Your task to perform on an android device: open sync settings in chrome Image 0: 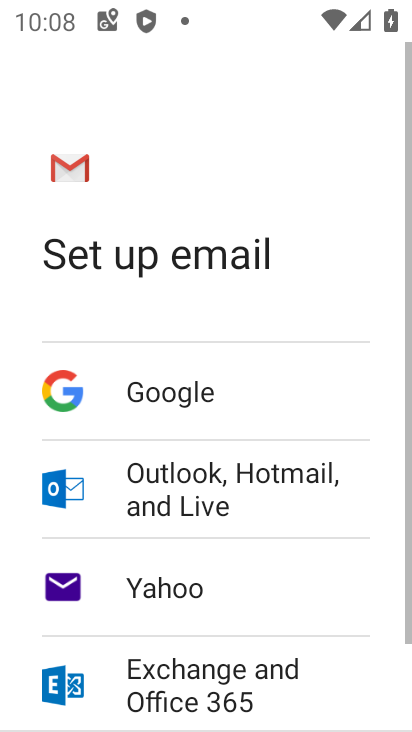
Step 0: press home button
Your task to perform on an android device: open sync settings in chrome Image 1: 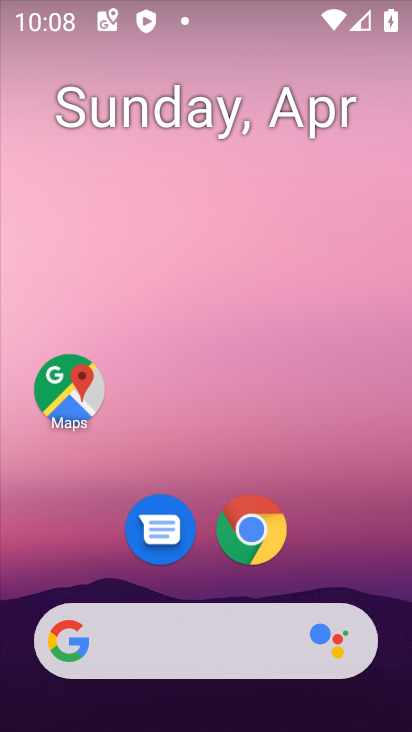
Step 1: click (257, 512)
Your task to perform on an android device: open sync settings in chrome Image 2: 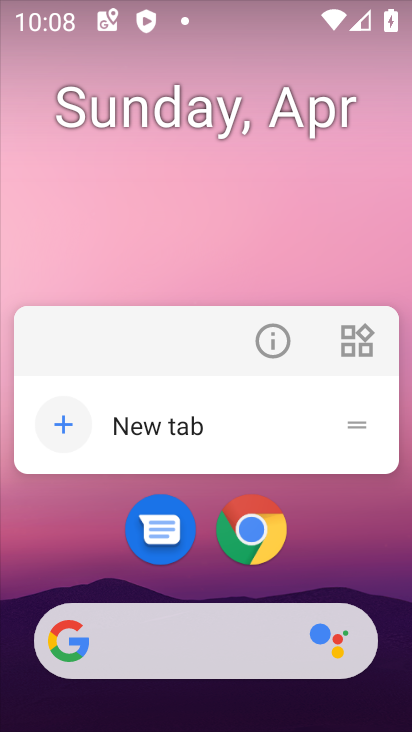
Step 2: click (256, 545)
Your task to perform on an android device: open sync settings in chrome Image 3: 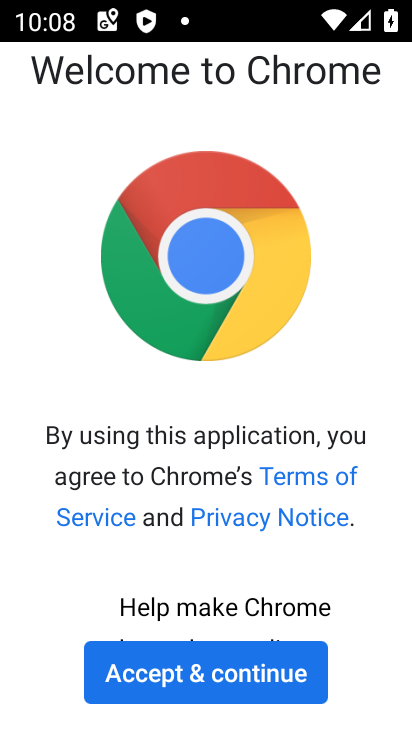
Step 3: click (206, 684)
Your task to perform on an android device: open sync settings in chrome Image 4: 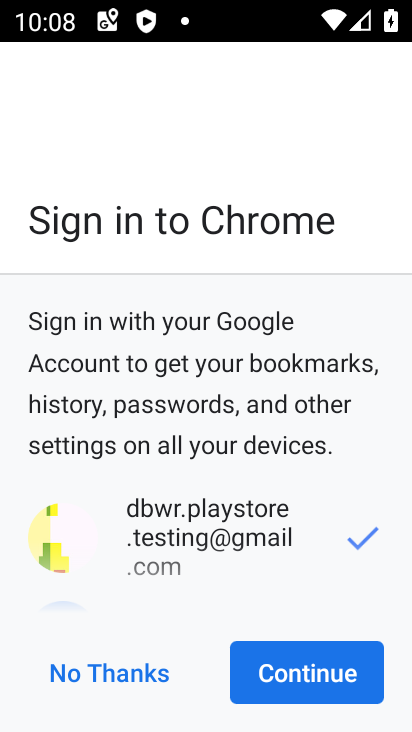
Step 4: click (299, 677)
Your task to perform on an android device: open sync settings in chrome Image 5: 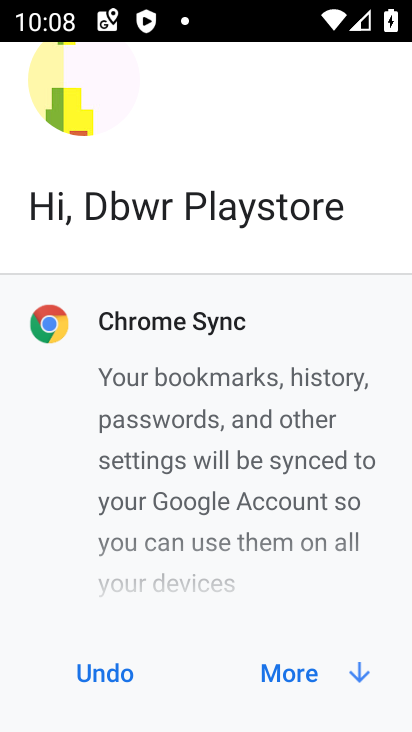
Step 5: click (299, 677)
Your task to perform on an android device: open sync settings in chrome Image 6: 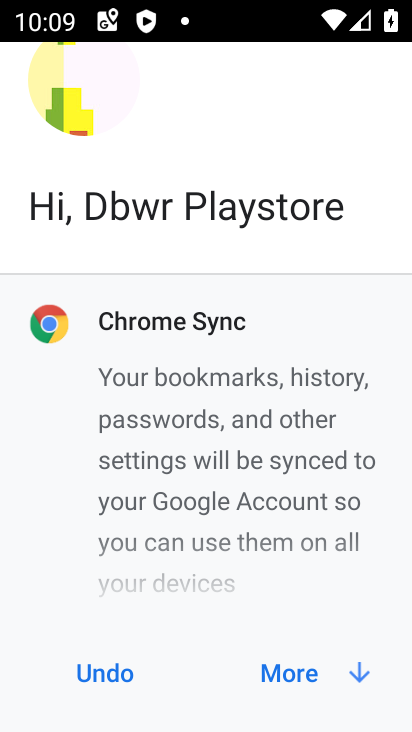
Step 6: click (299, 677)
Your task to perform on an android device: open sync settings in chrome Image 7: 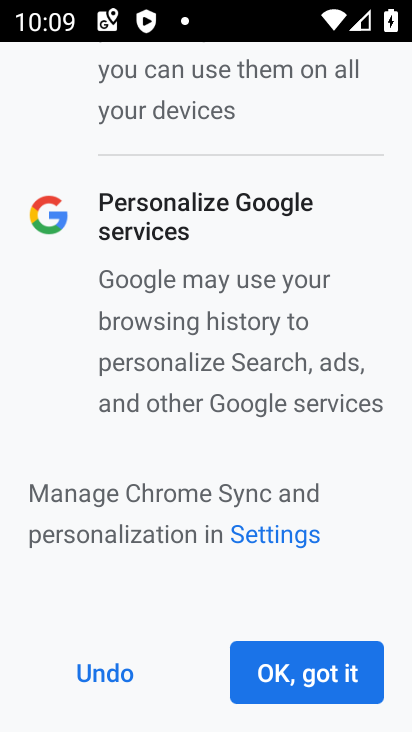
Step 7: click (299, 677)
Your task to perform on an android device: open sync settings in chrome Image 8: 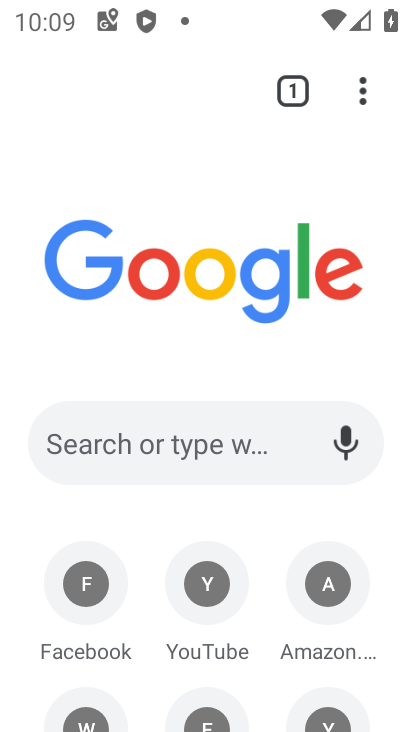
Step 8: click (366, 88)
Your task to perform on an android device: open sync settings in chrome Image 9: 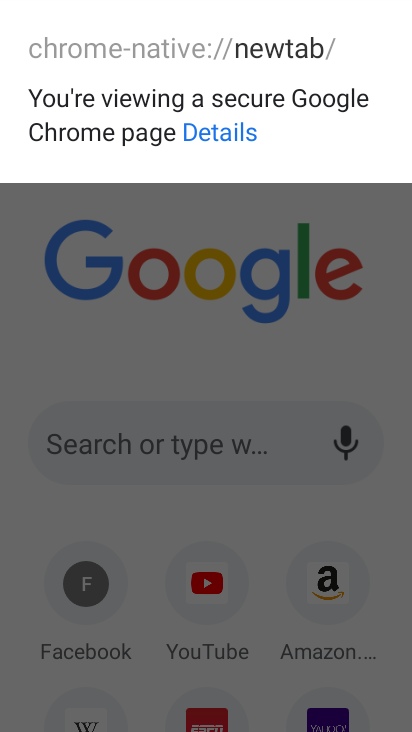
Step 9: click (351, 224)
Your task to perform on an android device: open sync settings in chrome Image 10: 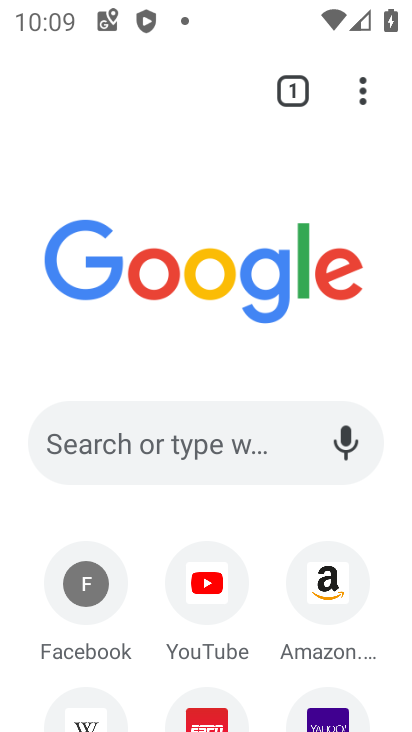
Step 10: click (364, 95)
Your task to perform on an android device: open sync settings in chrome Image 11: 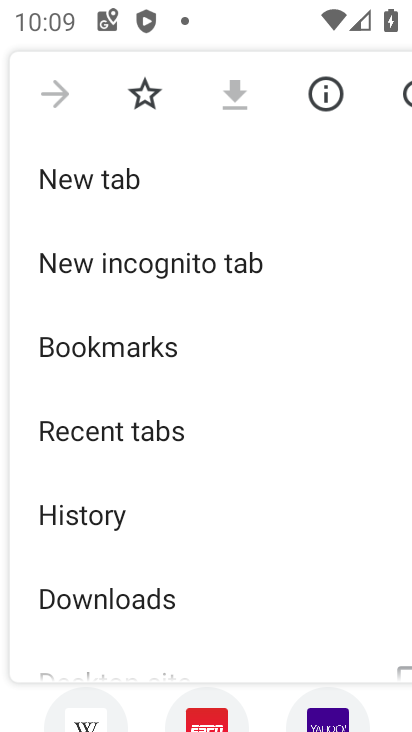
Step 11: drag from (206, 533) to (329, 137)
Your task to perform on an android device: open sync settings in chrome Image 12: 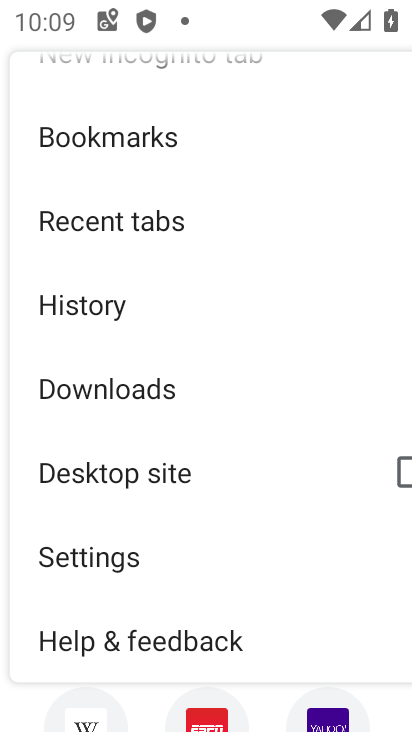
Step 12: click (112, 563)
Your task to perform on an android device: open sync settings in chrome Image 13: 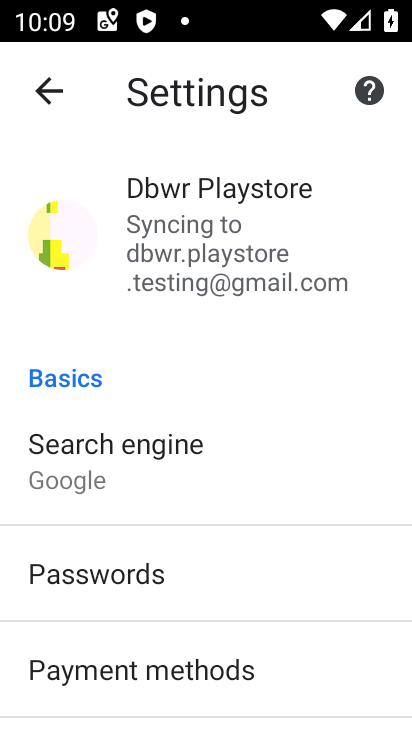
Step 13: drag from (134, 599) to (263, 158)
Your task to perform on an android device: open sync settings in chrome Image 14: 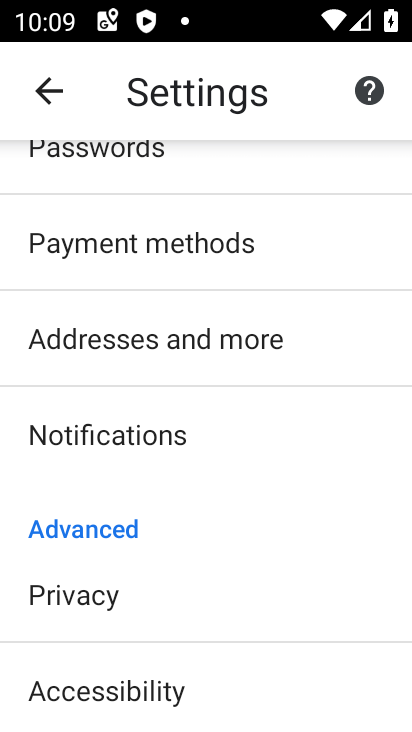
Step 14: drag from (110, 630) to (202, 160)
Your task to perform on an android device: open sync settings in chrome Image 15: 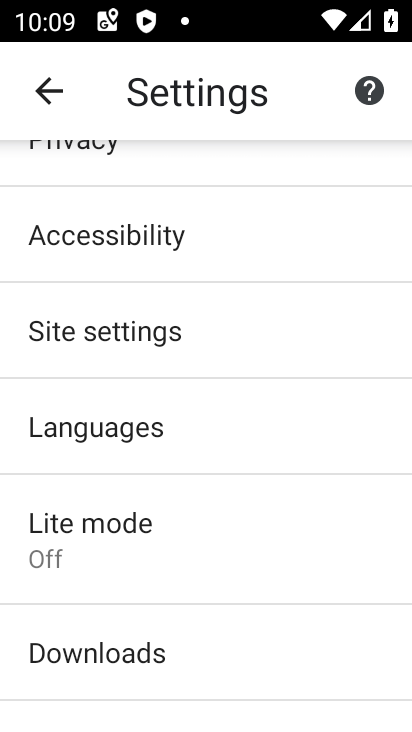
Step 15: click (166, 322)
Your task to perform on an android device: open sync settings in chrome Image 16: 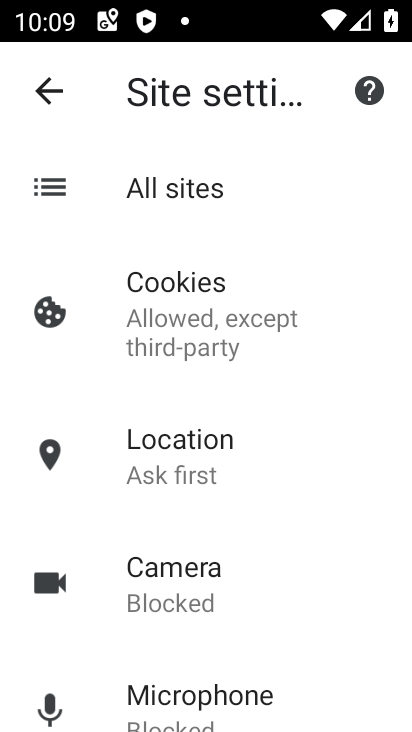
Step 16: drag from (167, 626) to (261, 299)
Your task to perform on an android device: open sync settings in chrome Image 17: 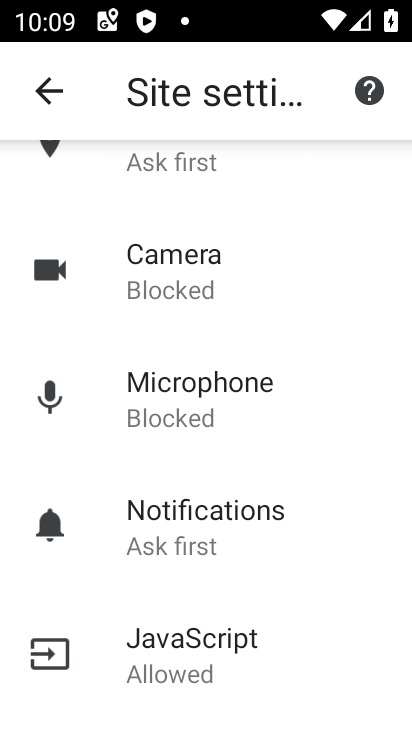
Step 17: drag from (191, 461) to (297, 213)
Your task to perform on an android device: open sync settings in chrome Image 18: 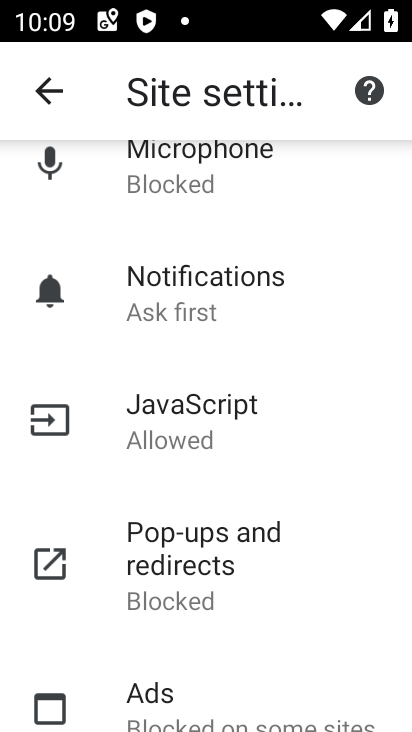
Step 18: drag from (234, 552) to (299, 313)
Your task to perform on an android device: open sync settings in chrome Image 19: 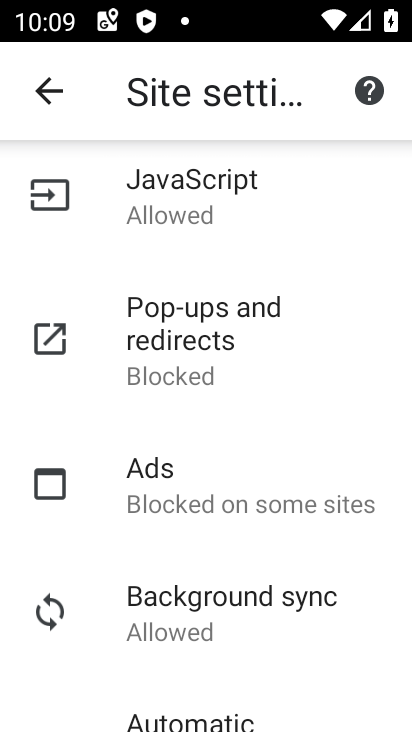
Step 19: click (227, 612)
Your task to perform on an android device: open sync settings in chrome Image 20: 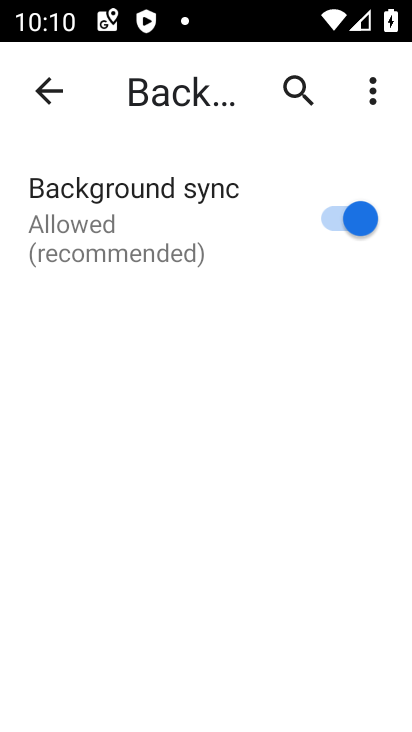
Step 20: task complete